Your task to perform on an android device: install app "HBO Max: Stream TV & Movies" Image 0: 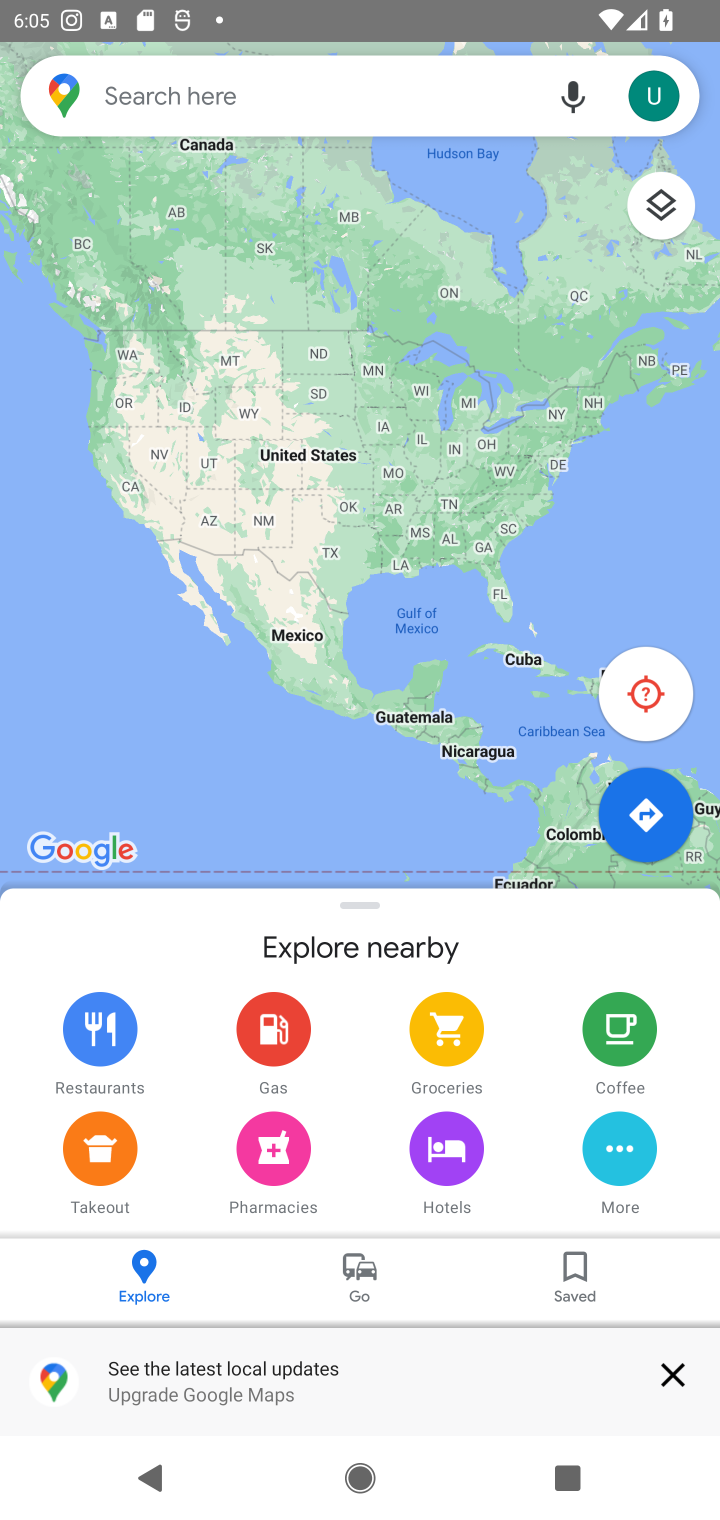
Step 0: press home button
Your task to perform on an android device: install app "HBO Max: Stream TV & Movies" Image 1: 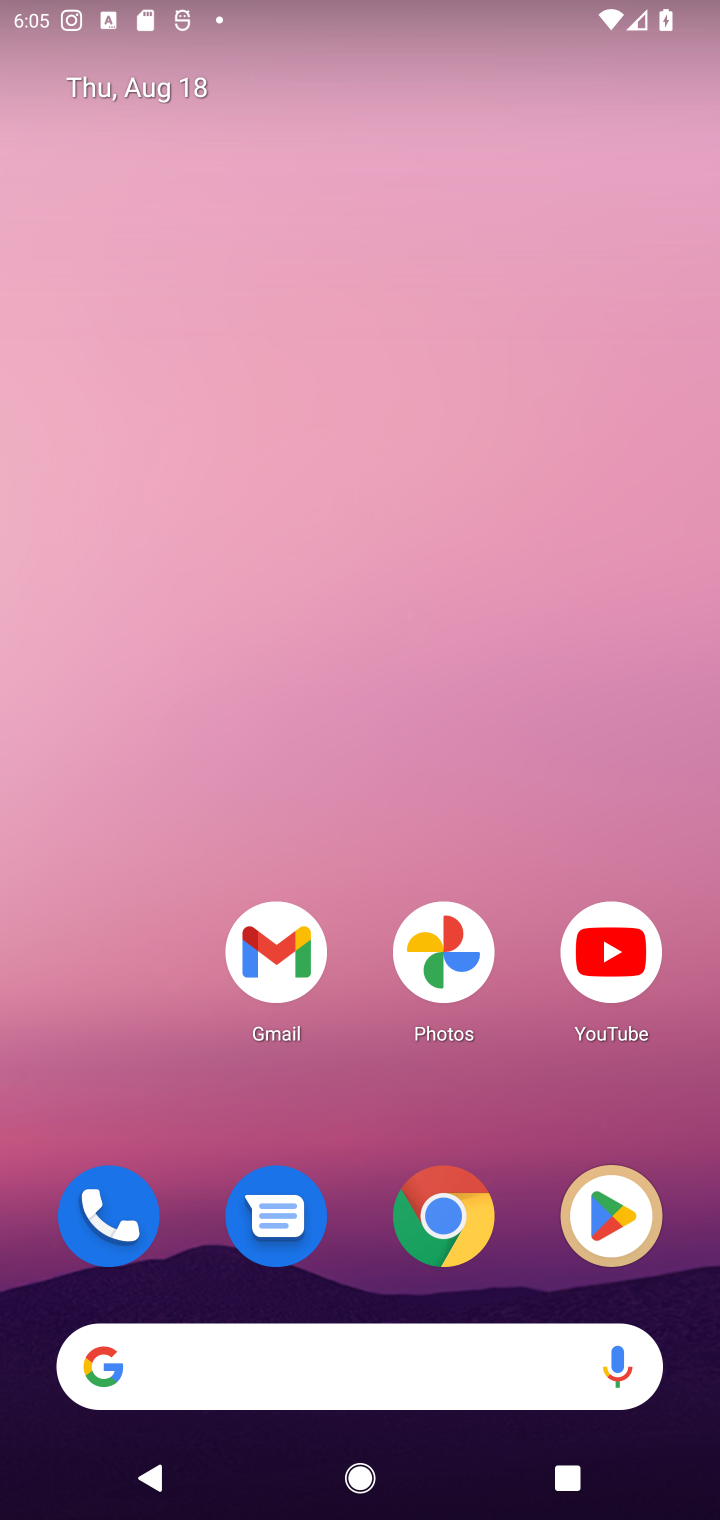
Step 1: click (594, 1214)
Your task to perform on an android device: install app "HBO Max: Stream TV & Movies" Image 2: 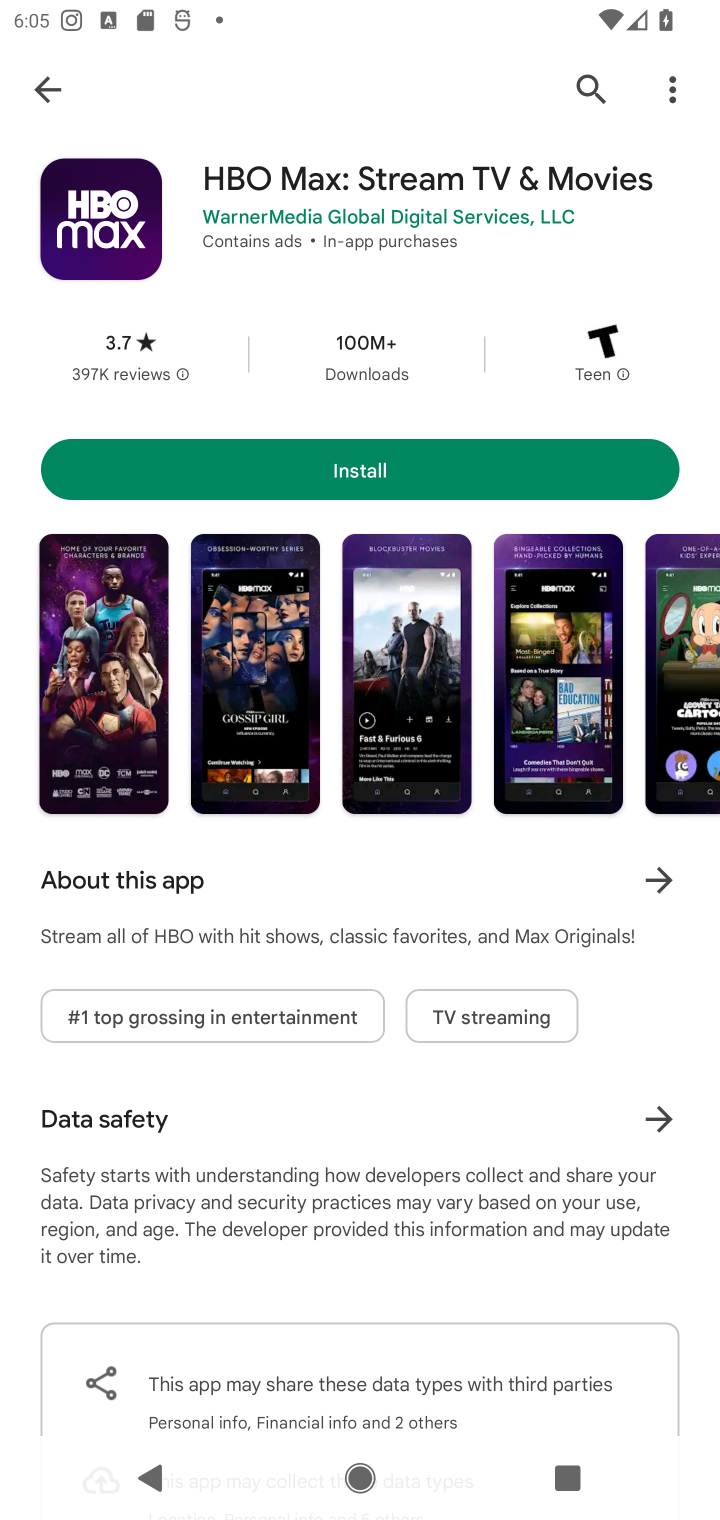
Step 2: click (582, 95)
Your task to perform on an android device: install app "HBO Max: Stream TV & Movies" Image 3: 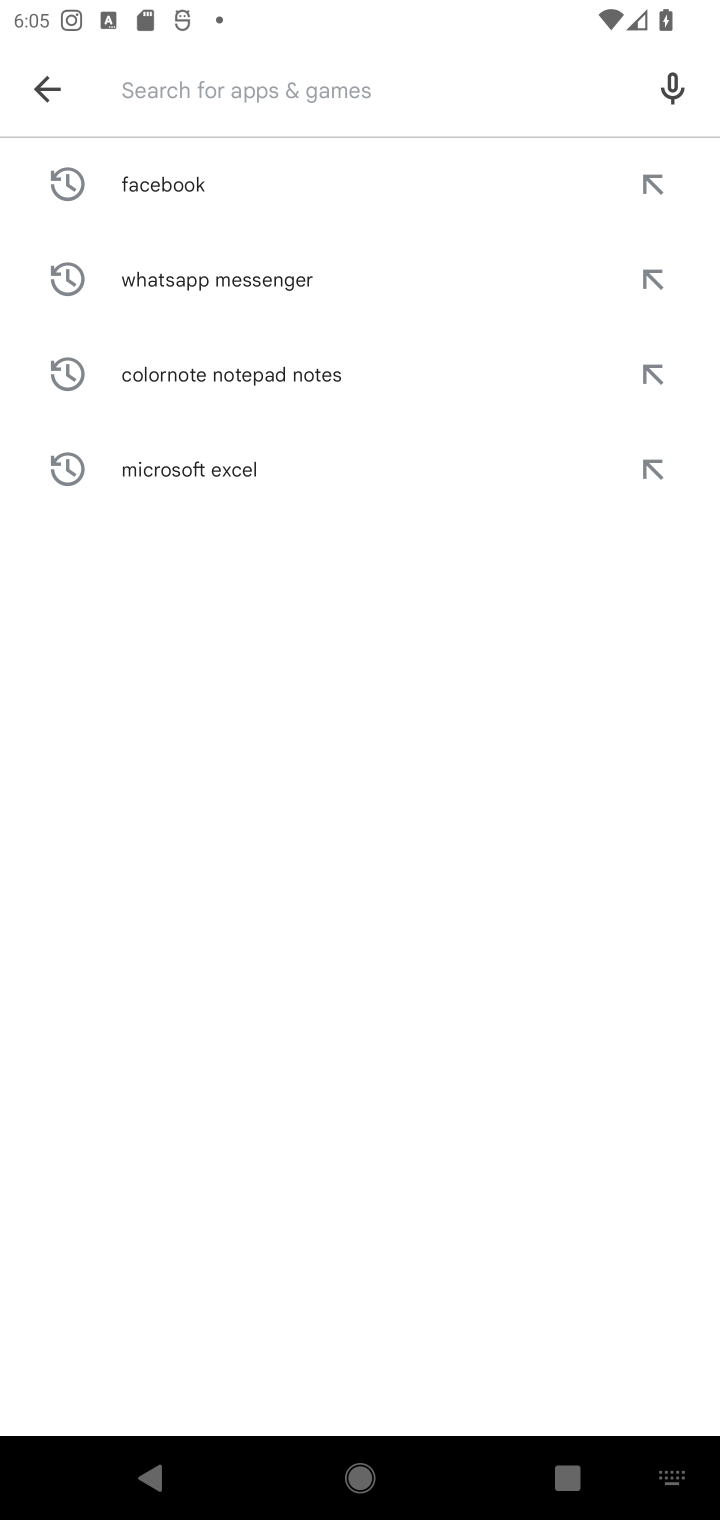
Step 3: click (215, 98)
Your task to perform on an android device: install app "HBO Max: Stream TV & Movies" Image 4: 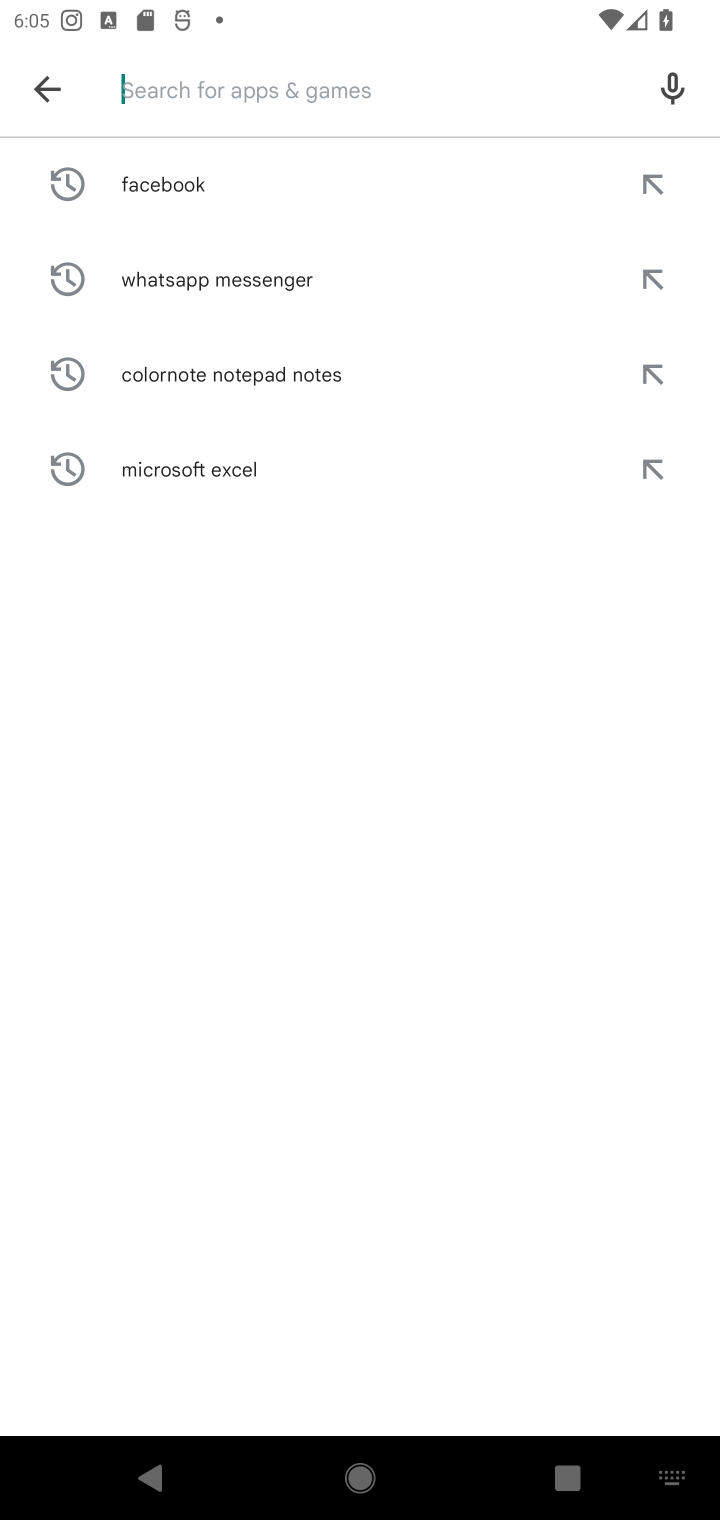
Step 4: click (215, 98)
Your task to perform on an android device: install app "HBO Max: Stream TV & Movies" Image 5: 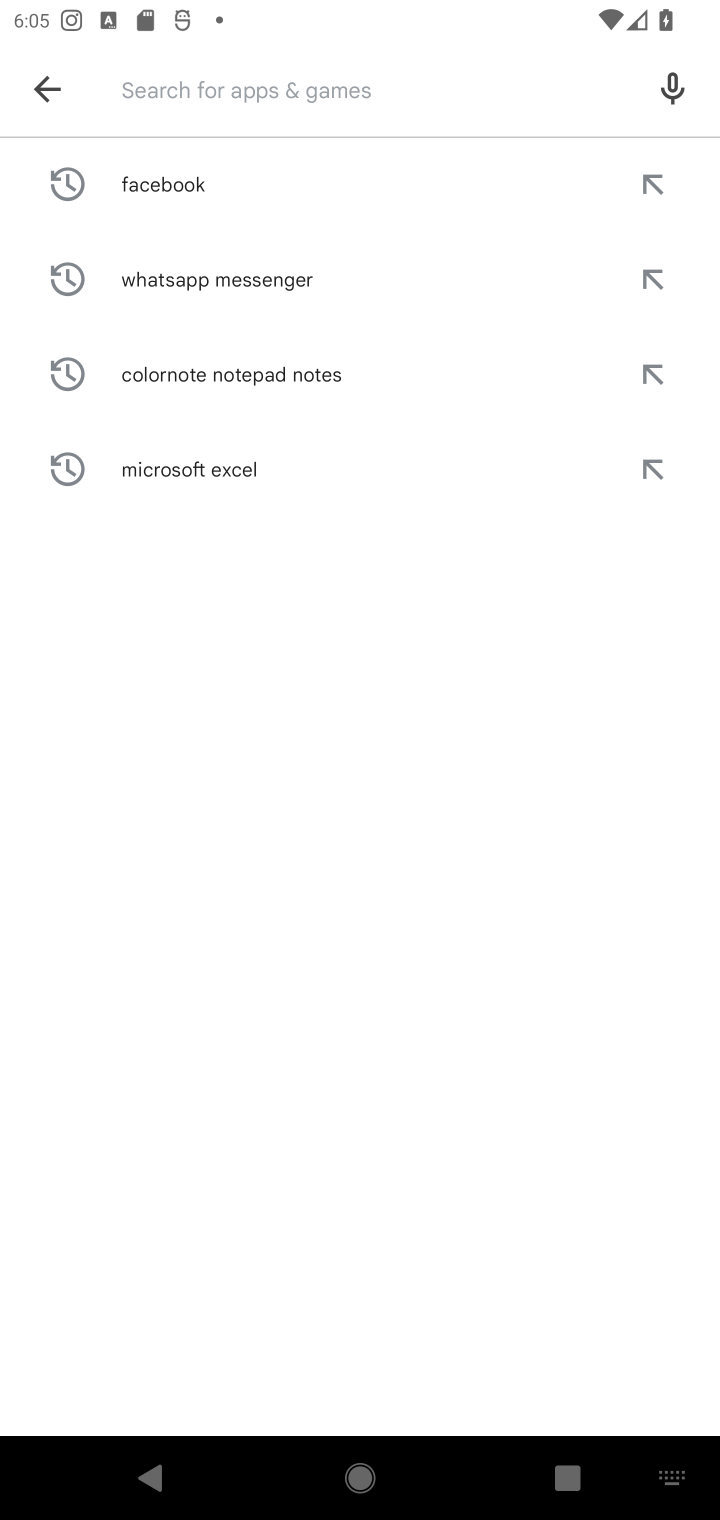
Step 5: type "HBO Max: Stream TV & Movies"
Your task to perform on an android device: install app "HBO Max: Stream TV & Movies" Image 6: 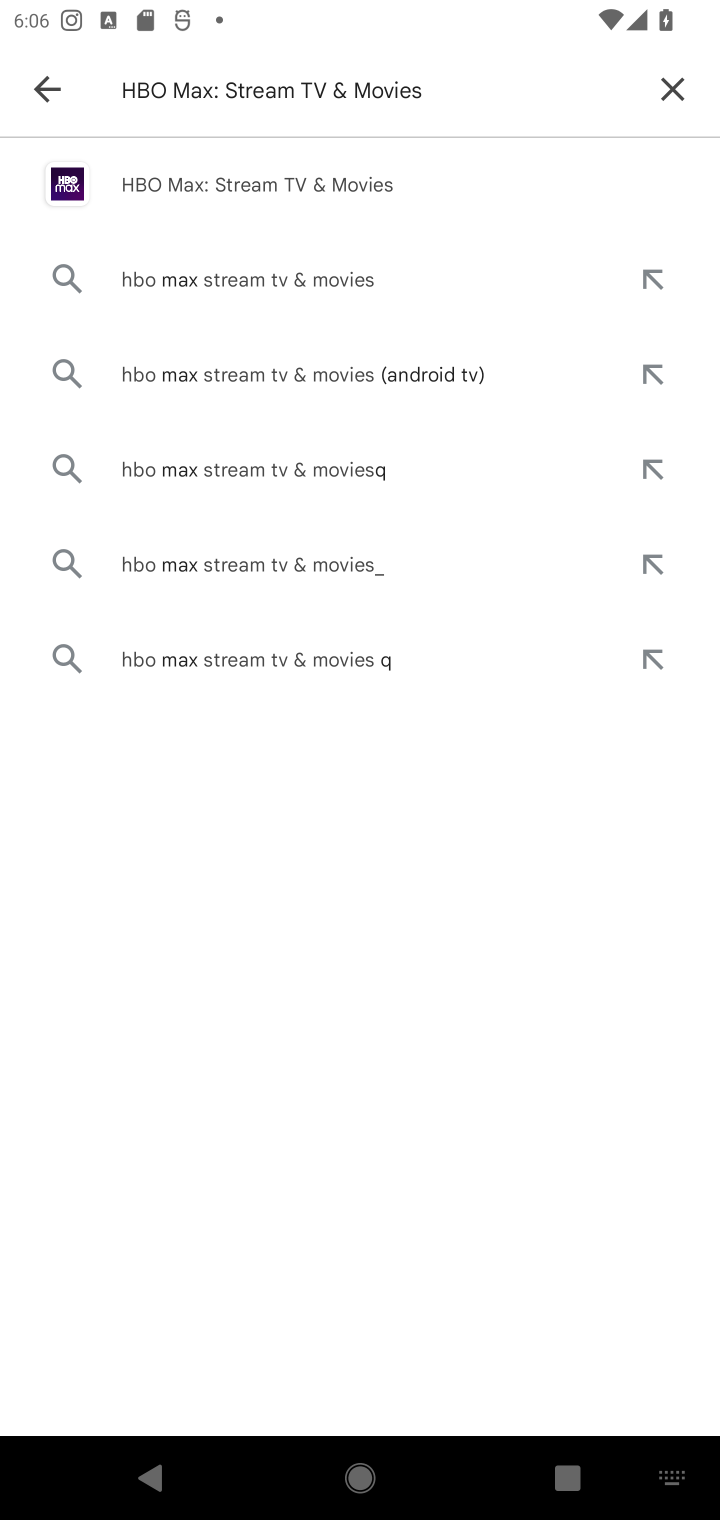
Step 6: click (218, 182)
Your task to perform on an android device: install app "HBO Max: Stream TV & Movies" Image 7: 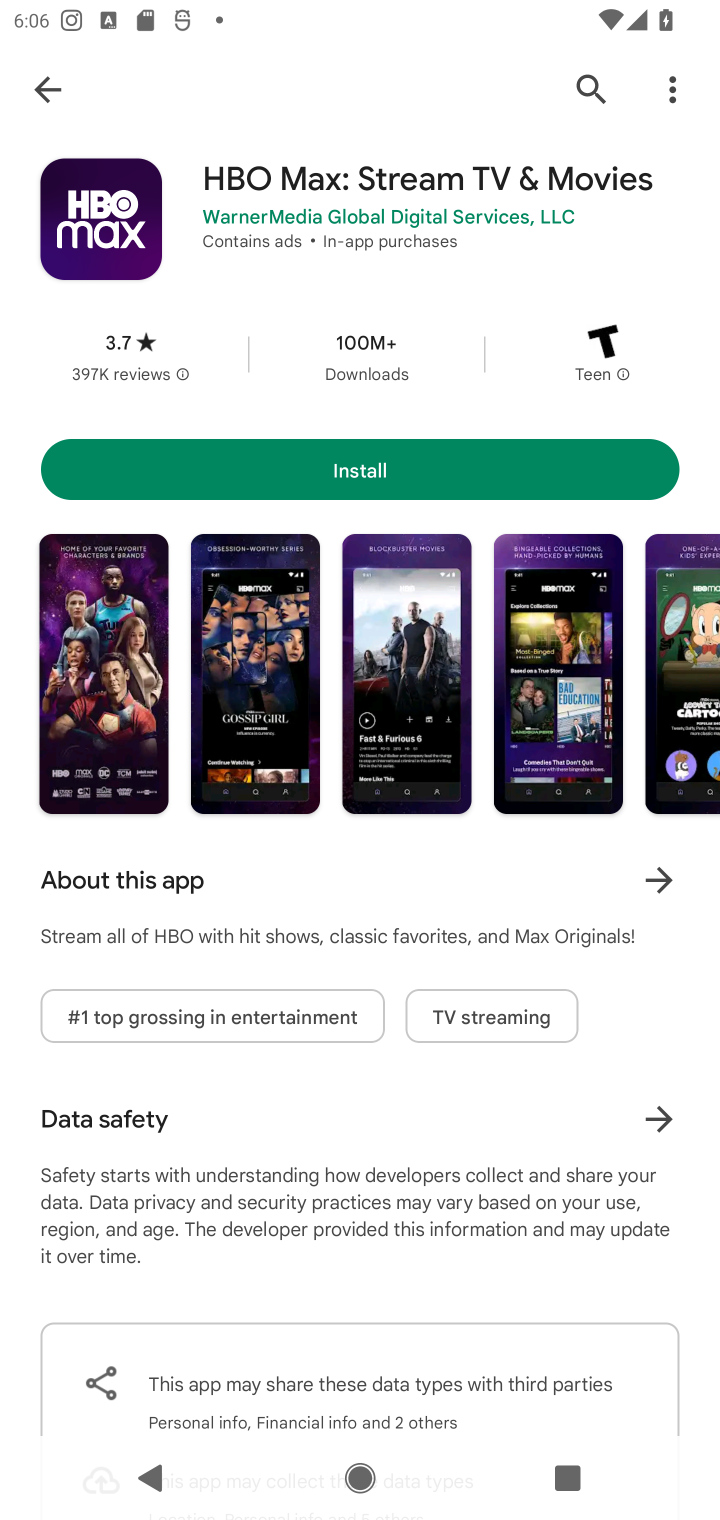
Step 7: click (316, 458)
Your task to perform on an android device: install app "HBO Max: Stream TV & Movies" Image 8: 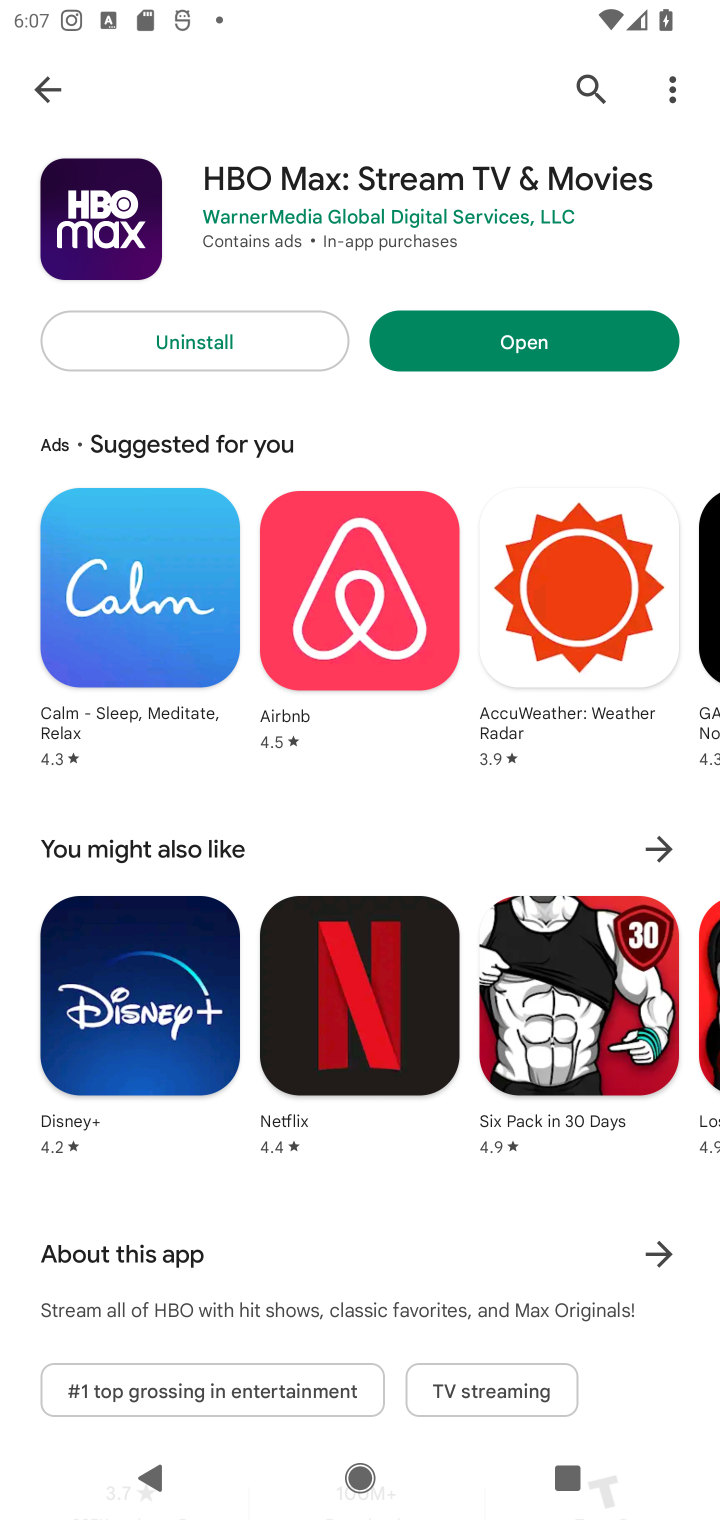
Step 8: task complete